Your task to perform on an android device: Add razer blade to the cart on amazon, then select checkout. Image 0: 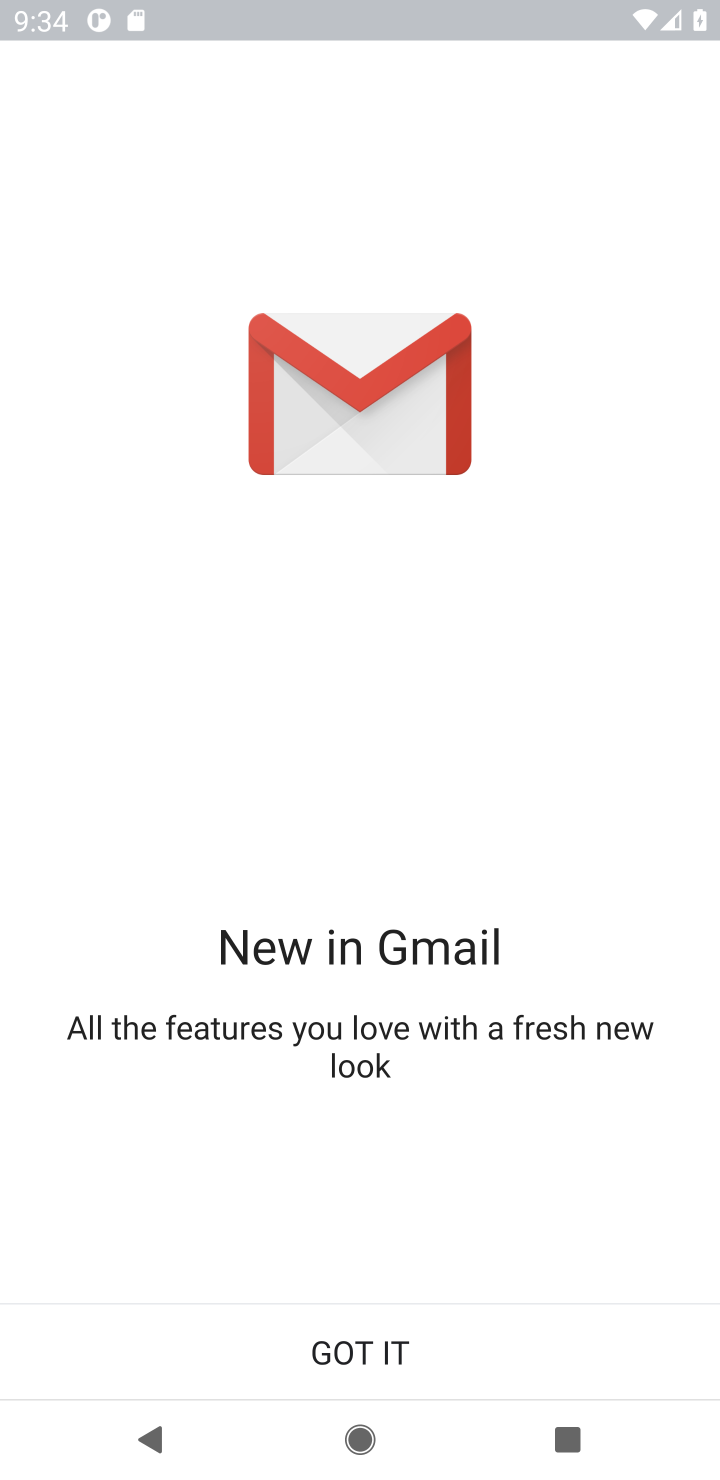
Step 0: press home button
Your task to perform on an android device: Add razer blade to the cart on amazon, then select checkout. Image 1: 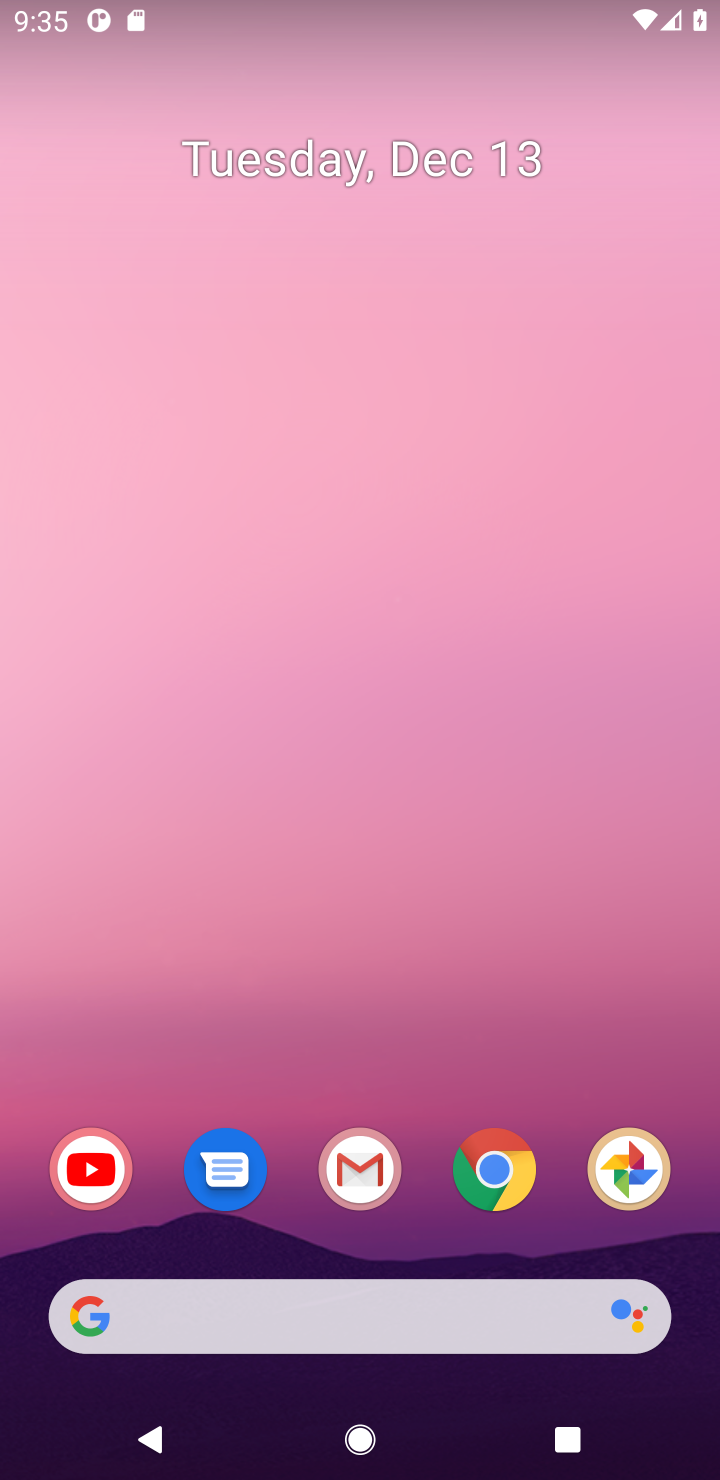
Step 1: click (506, 1178)
Your task to perform on an android device: Add razer blade to the cart on amazon, then select checkout. Image 2: 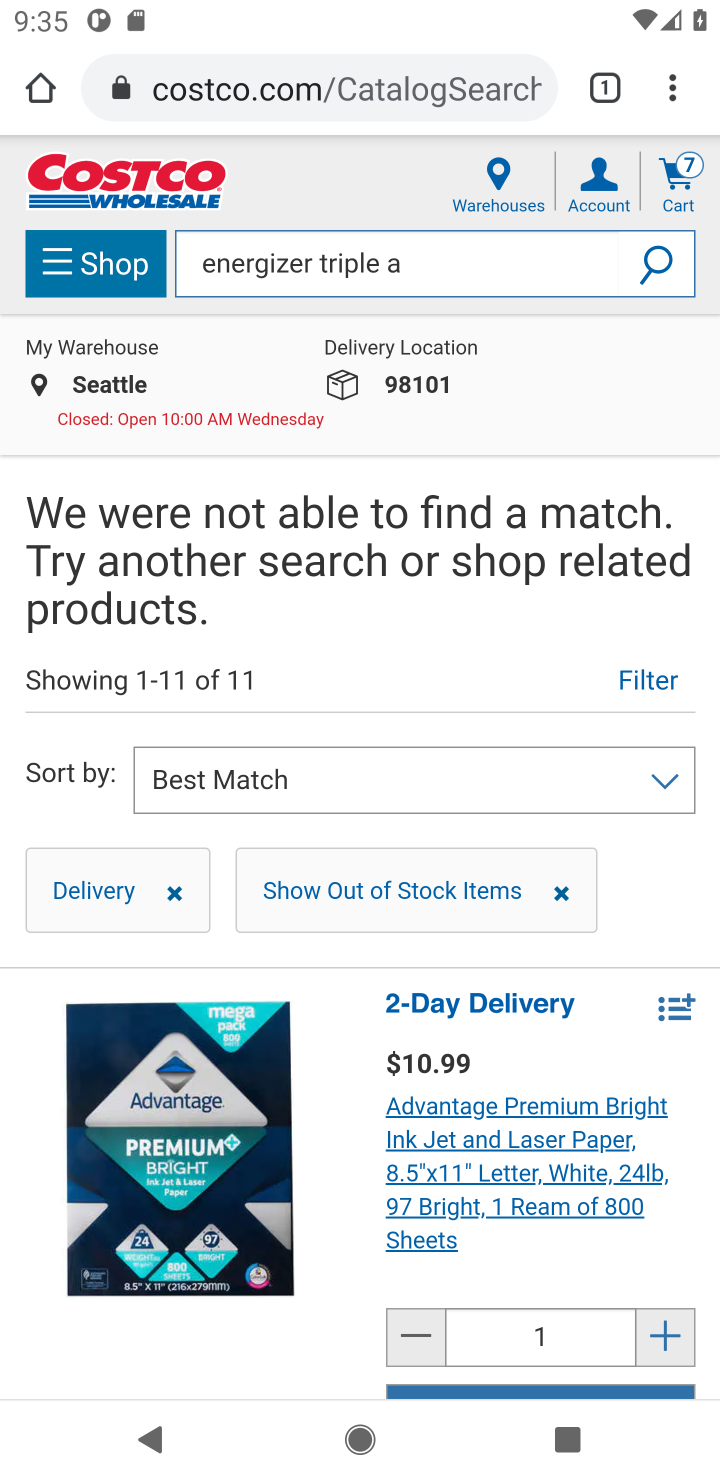
Step 2: click (326, 95)
Your task to perform on an android device: Add razer blade to the cart on amazon, then select checkout. Image 3: 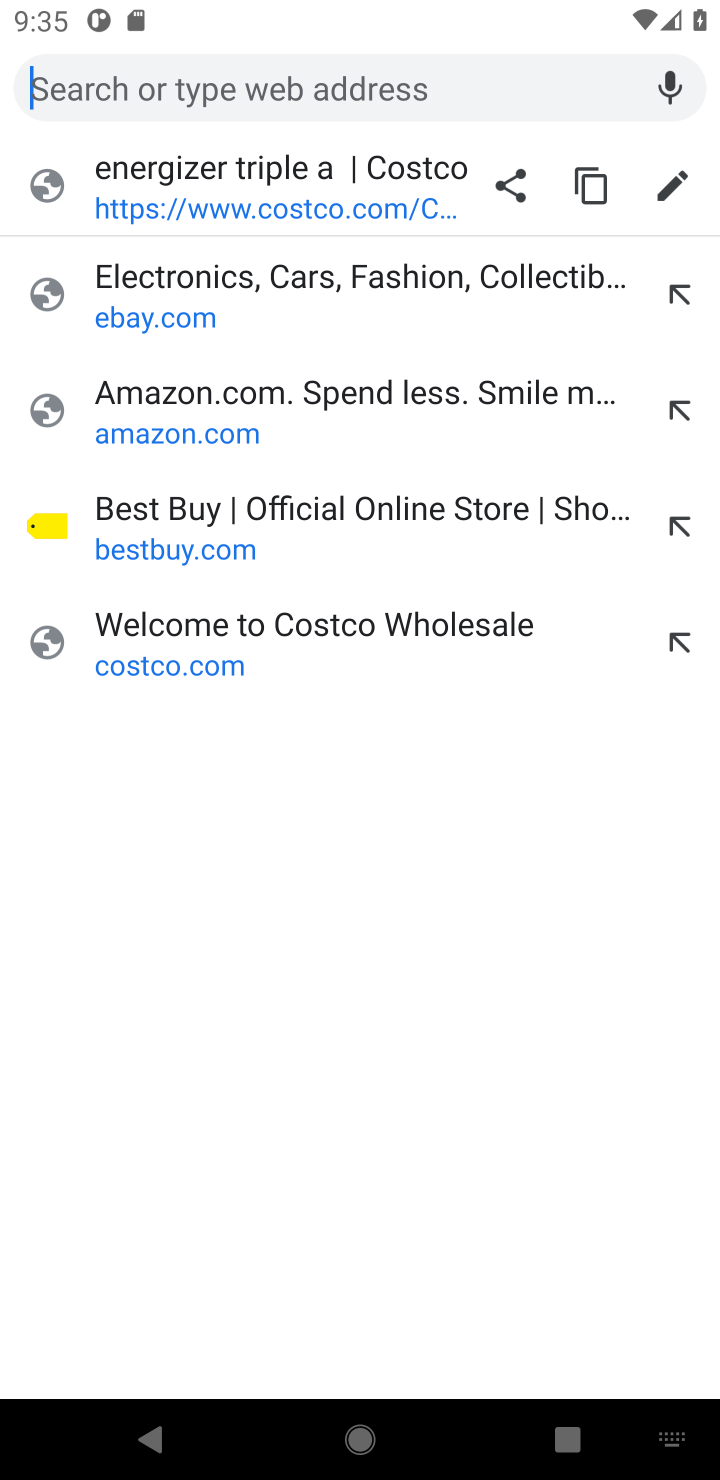
Step 3: type "amazon"
Your task to perform on an android device: Add razer blade to the cart on amazon, then select checkout. Image 4: 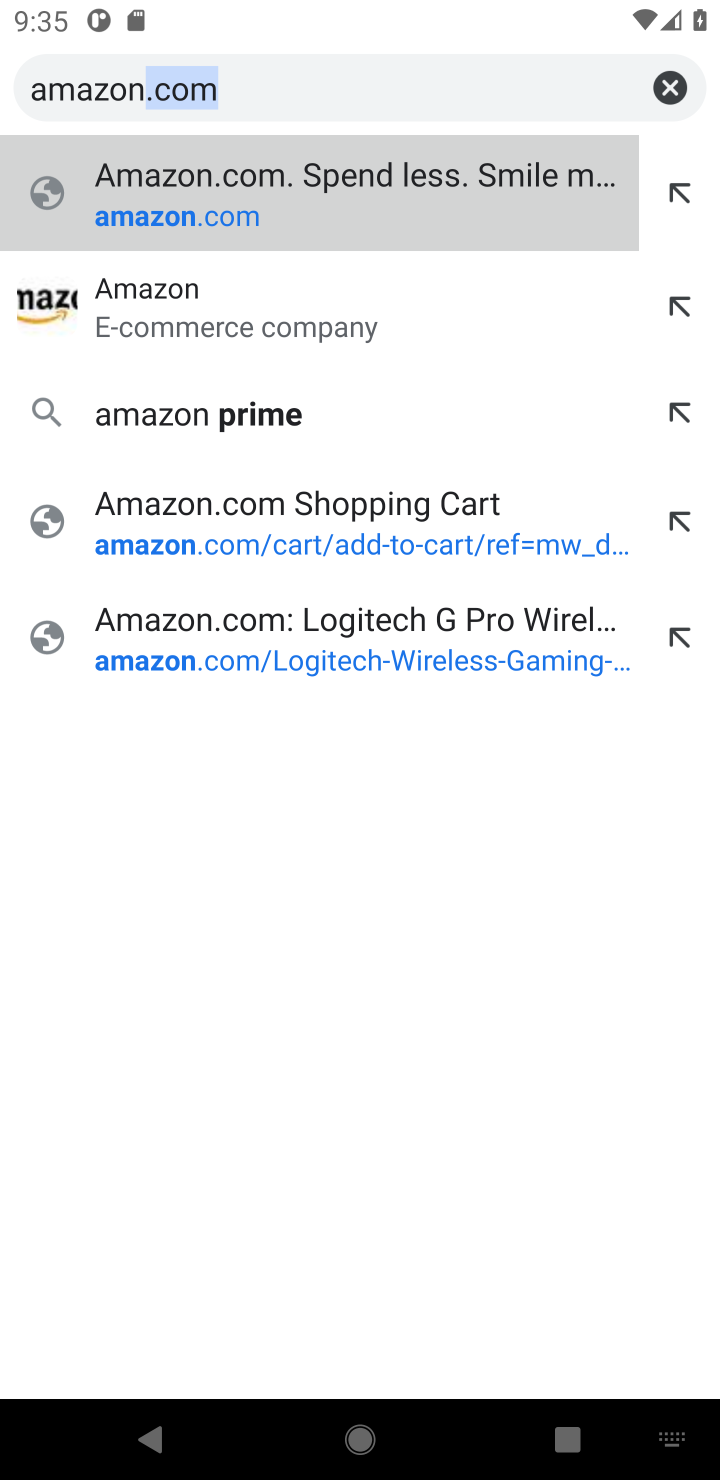
Step 4: click (316, 200)
Your task to perform on an android device: Add razer blade to the cart on amazon, then select checkout. Image 5: 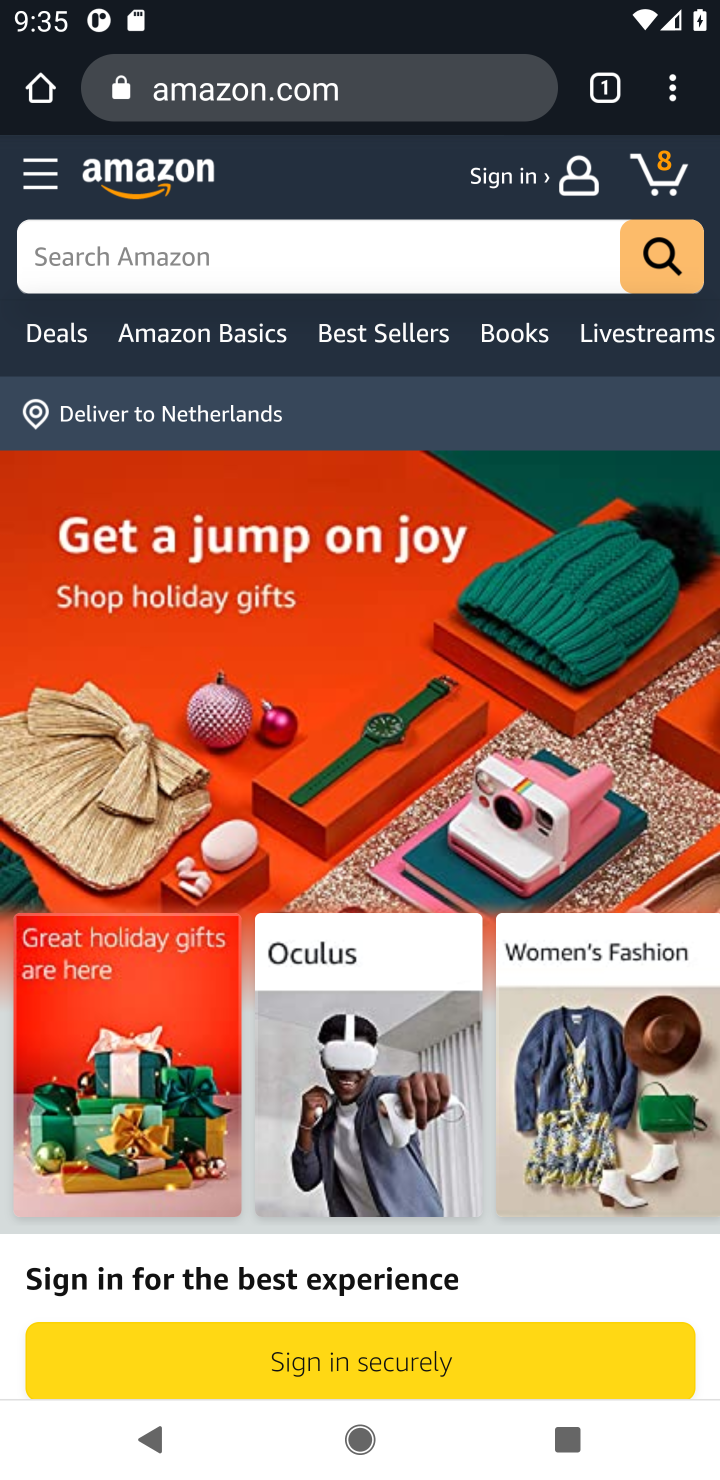
Step 5: click (331, 249)
Your task to perform on an android device: Add razer blade to the cart on amazon, then select checkout. Image 6: 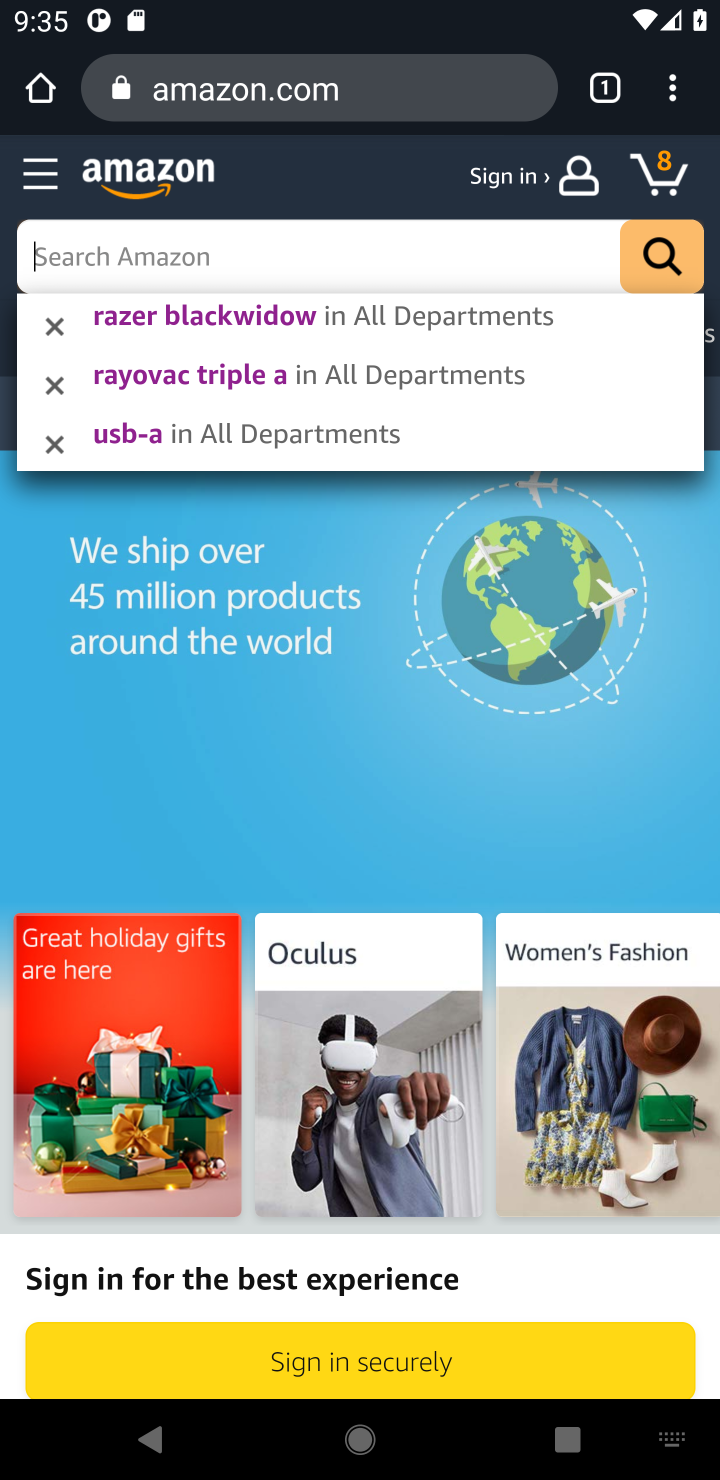
Step 6: type "razer blade"
Your task to perform on an android device: Add razer blade to the cart on amazon, then select checkout. Image 7: 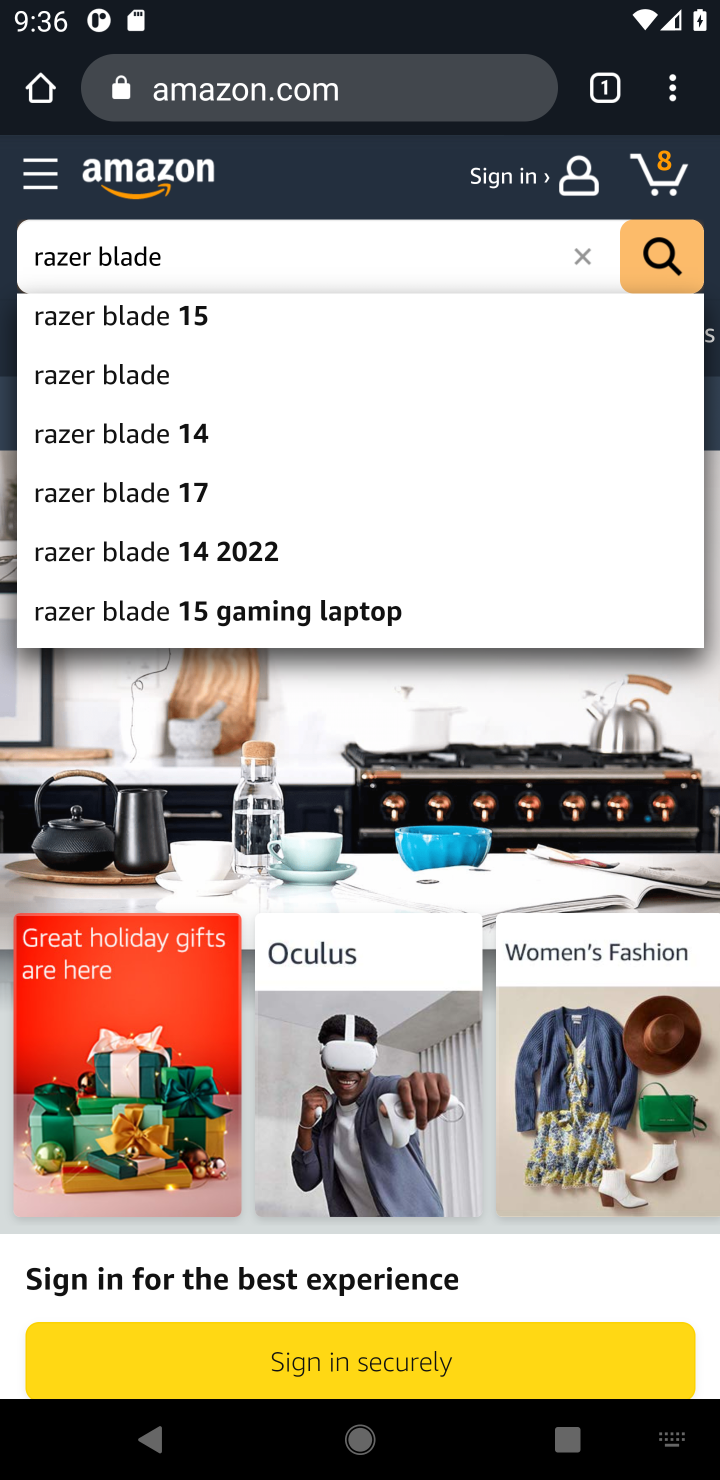
Step 7: click (657, 272)
Your task to perform on an android device: Add razer blade to the cart on amazon, then select checkout. Image 8: 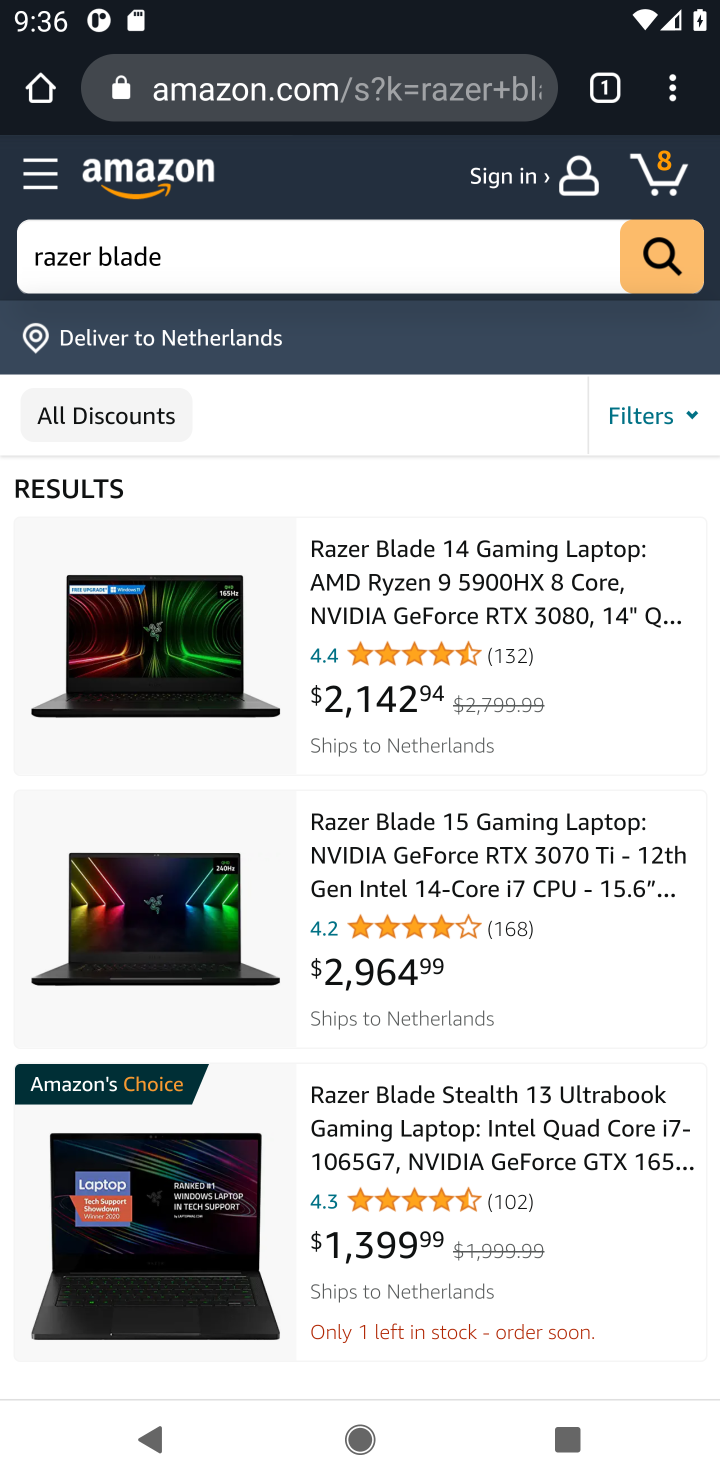
Step 8: click (414, 555)
Your task to perform on an android device: Add razer blade to the cart on amazon, then select checkout. Image 9: 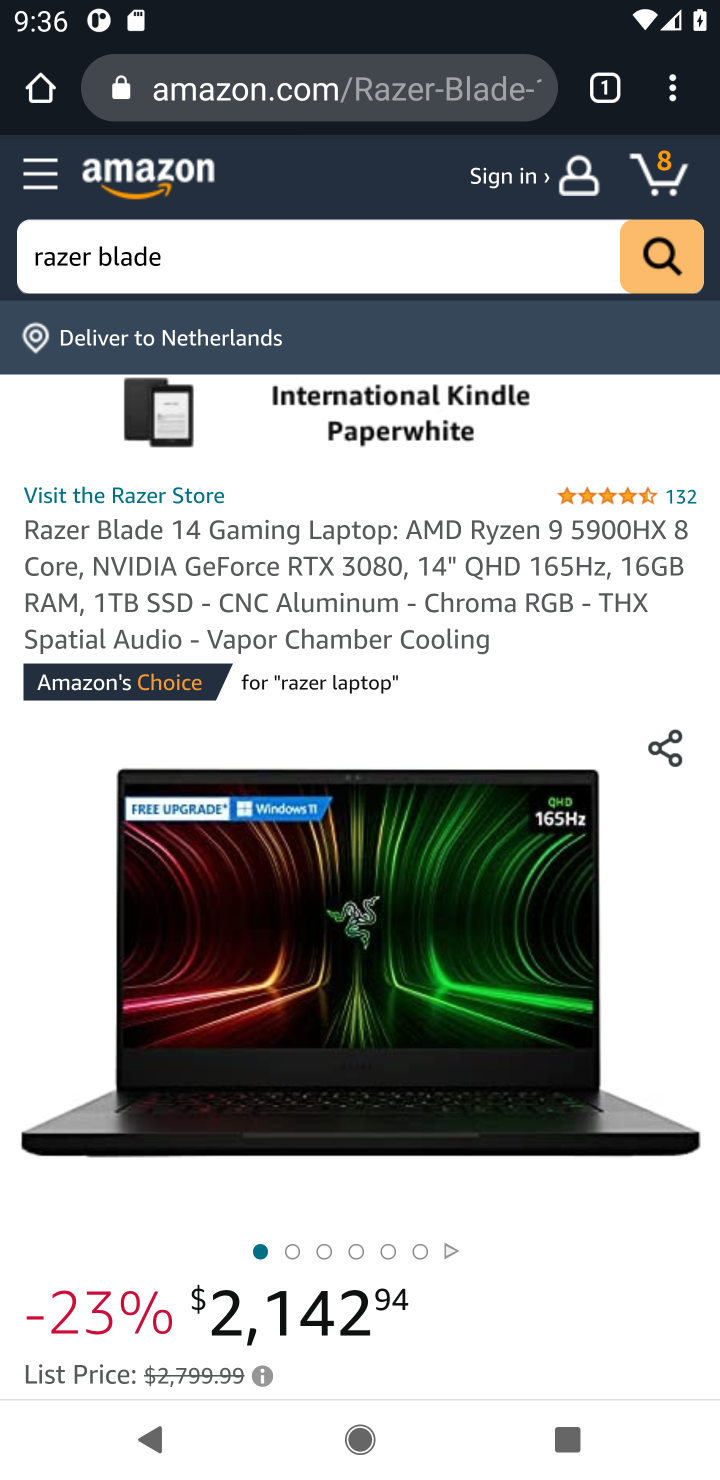
Step 9: drag from (553, 1301) to (523, 755)
Your task to perform on an android device: Add razer blade to the cart on amazon, then select checkout. Image 10: 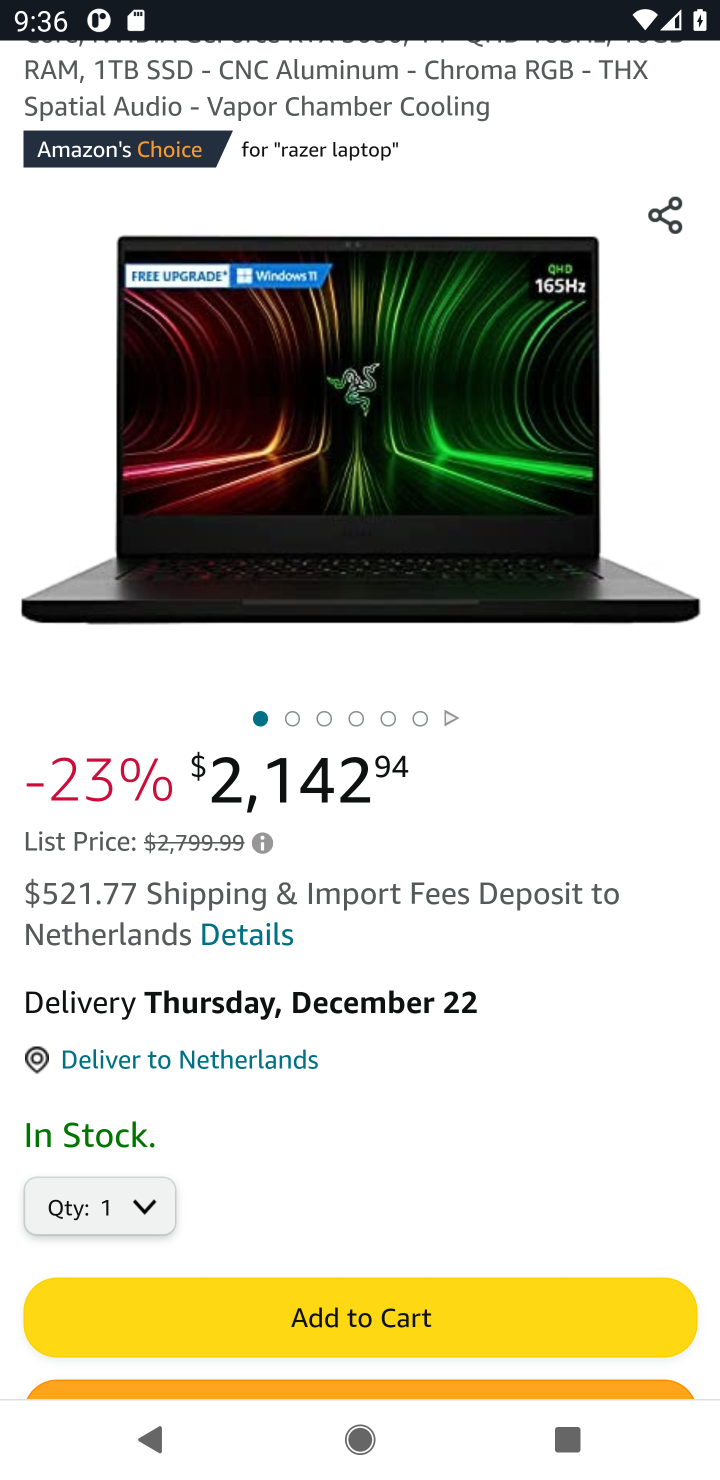
Step 10: click (500, 1337)
Your task to perform on an android device: Add razer blade to the cart on amazon, then select checkout. Image 11: 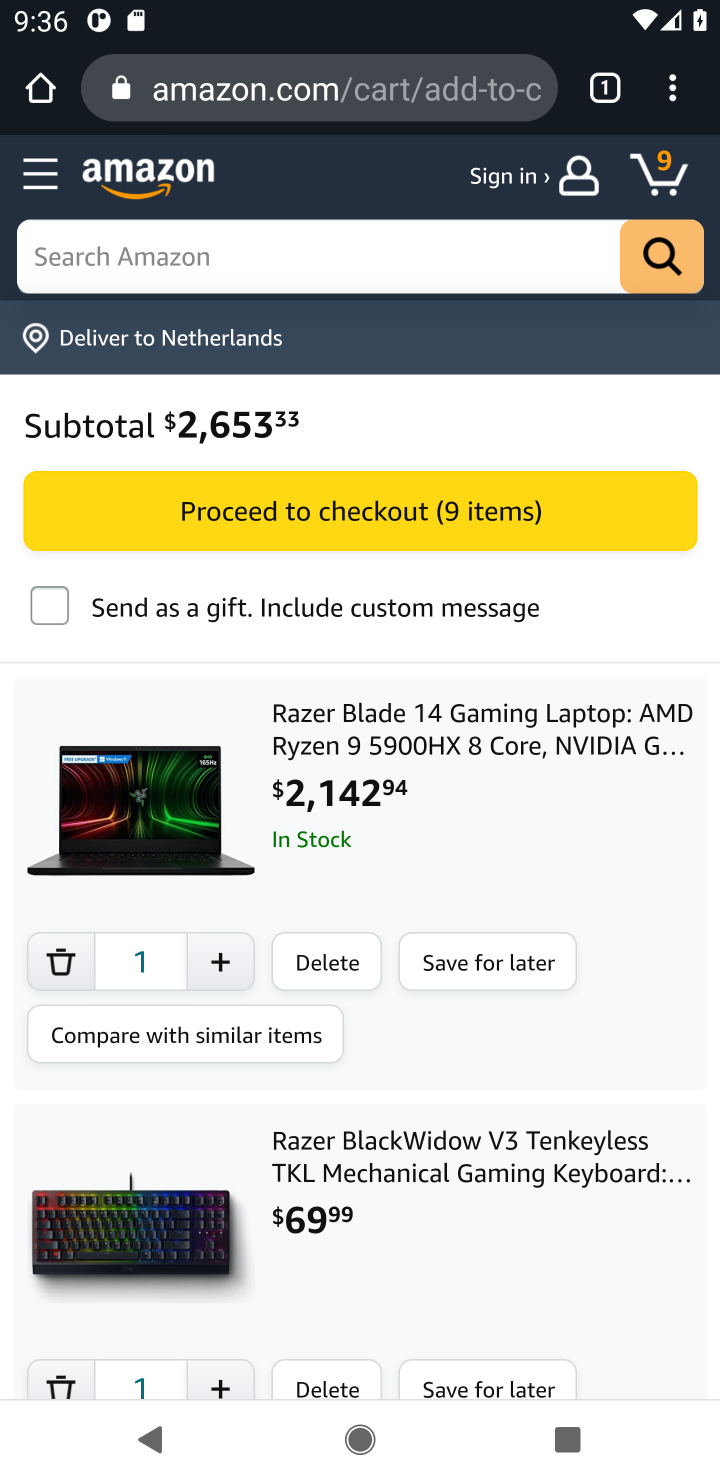
Step 11: task complete